Your task to perform on an android device: Search for Mexican restaurants on Maps Image 0: 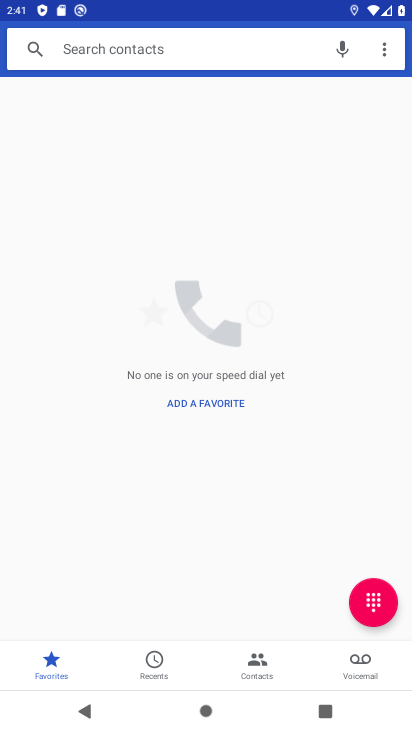
Step 0: press home button
Your task to perform on an android device: Search for Mexican restaurants on Maps Image 1: 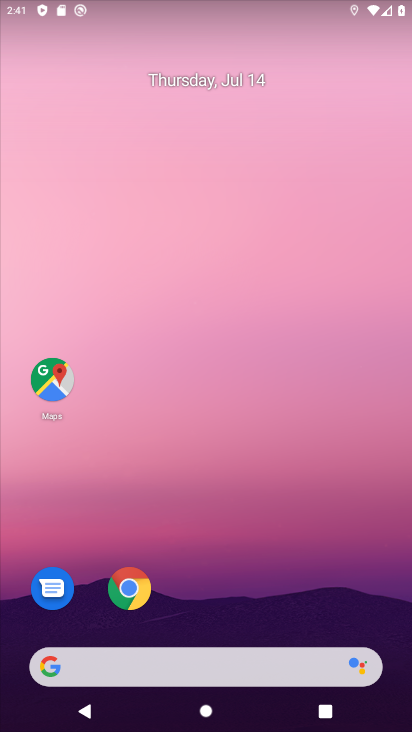
Step 1: drag from (209, 631) to (218, 35)
Your task to perform on an android device: Search for Mexican restaurants on Maps Image 2: 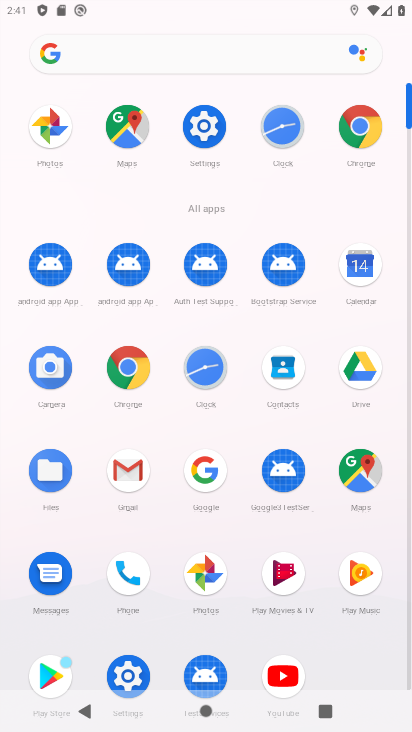
Step 2: click (362, 491)
Your task to perform on an android device: Search for Mexican restaurants on Maps Image 3: 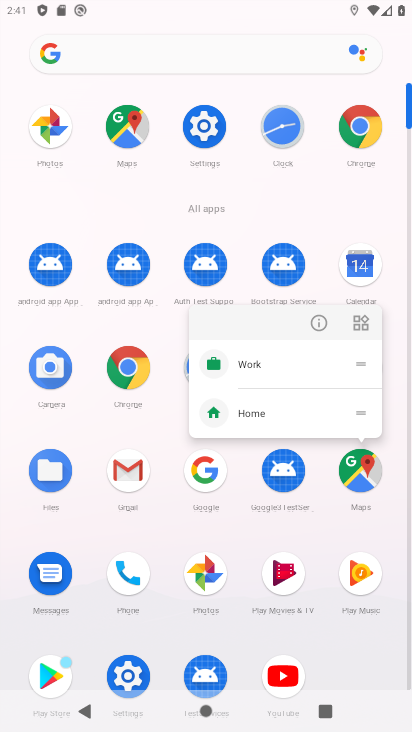
Step 3: click (362, 481)
Your task to perform on an android device: Search for Mexican restaurants on Maps Image 4: 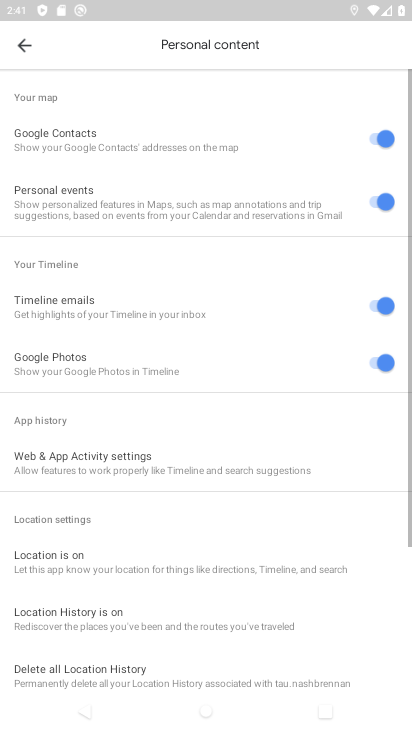
Step 4: click (22, 54)
Your task to perform on an android device: Search for Mexican restaurants on Maps Image 5: 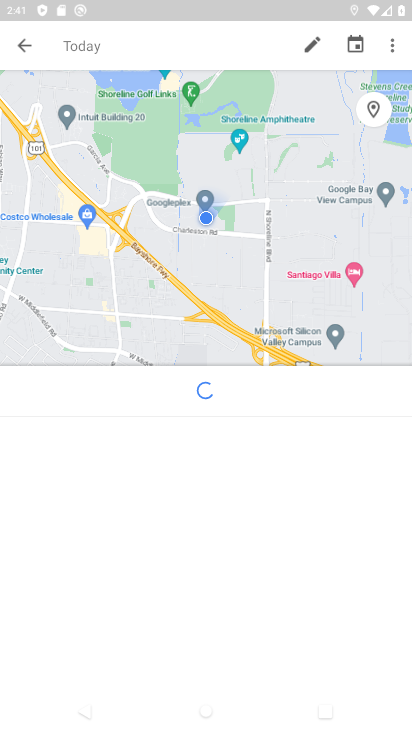
Step 5: click (34, 48)
Your task to perform on an android device: Search for Mexican restaurants on Maps Image 6: 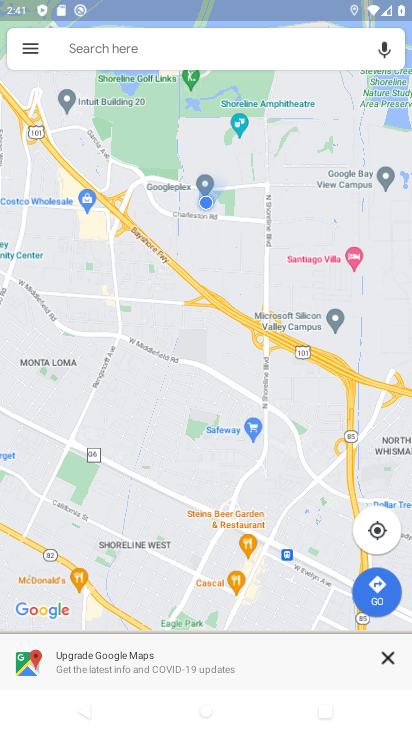
Step 6: click (118, 38)
Your task to perform on an android device: Search for Mexican restaurants on Maps Image 7: 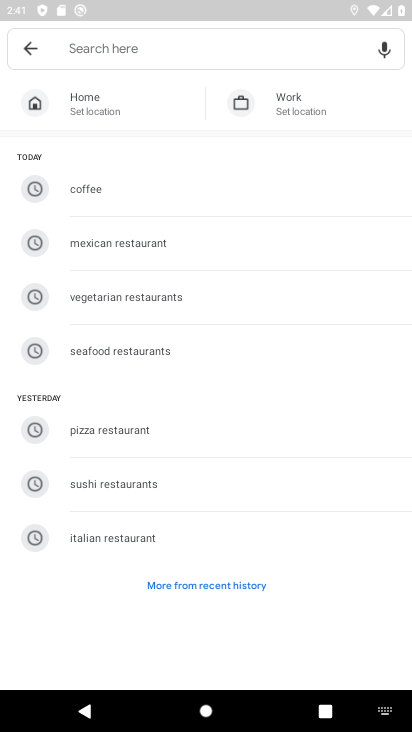
Step 7: type "Mexican restaurants"
Your task to perform on an android device: Search for Mexican restaurants on Maps Image 8: 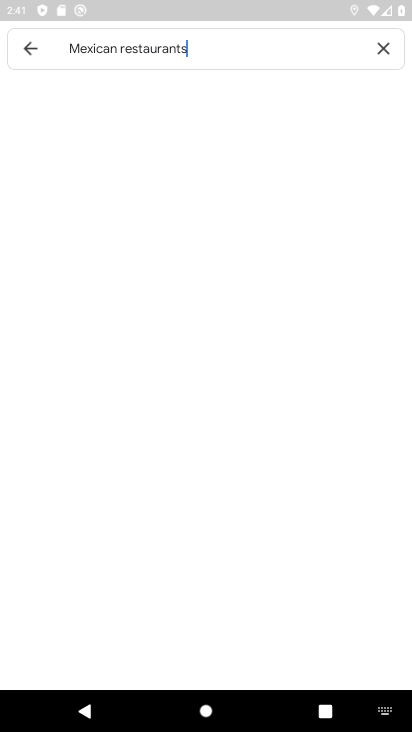
Step 8: type ""
Your task to perform on an android device: Search for Mexican restaurants on Maps Image 9: 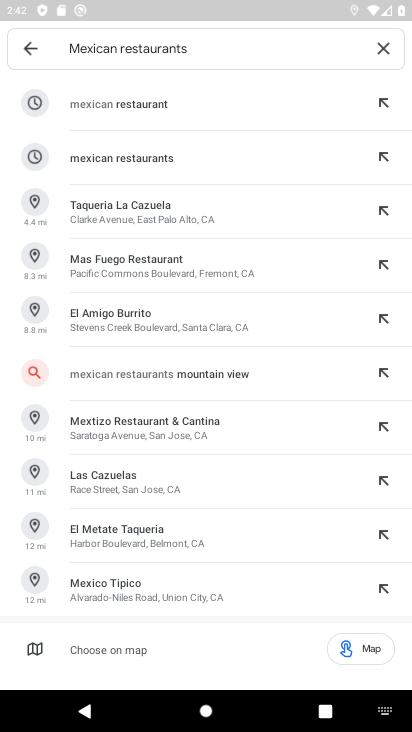
Step 9: click (62, 125)
Your task to perform on an android device: Search for Mexican restaurants on Maps Image 10: 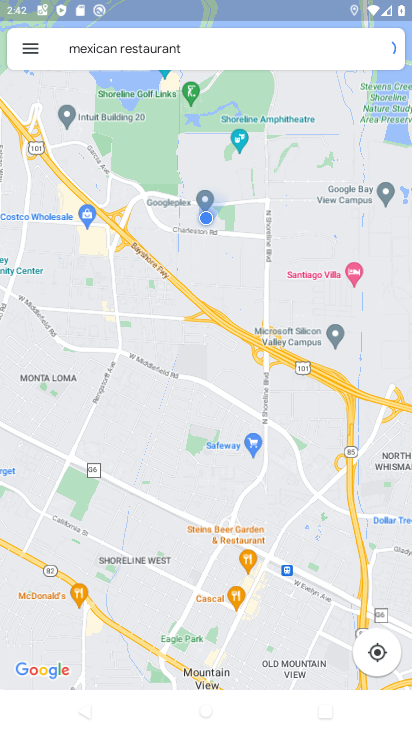
Step 10: task complete